Your task to perform on an android device: turn on airplane mode Image 0: 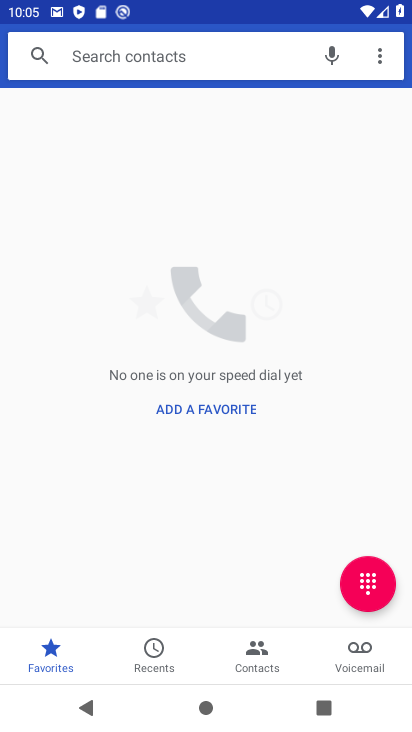
Step 0: press home button
Your task to perform on an android device: turn on airplane mode Image 1: 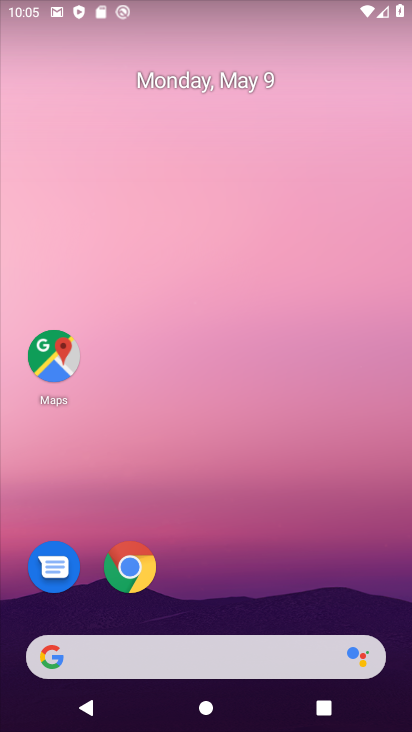
Step 1: drag from (220, 577) to (203, 220)
Your task to perform on an android device: turn on airplane mode Image 2: 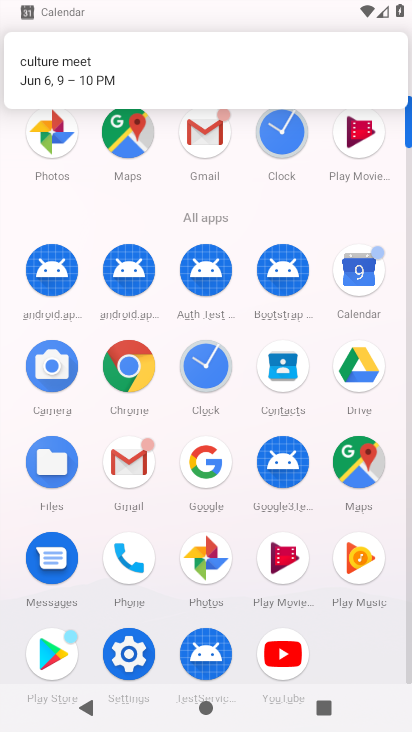
Step 2: click (126, 633)
Your task to perform on an android device: turn on airplane mode Image 3: 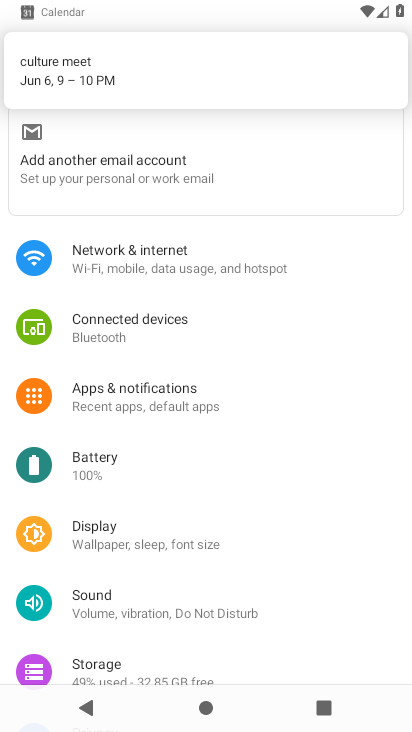
Step 3: click (164, 253)
Your task to perform on an android device: turn on airplane mode Image 4: 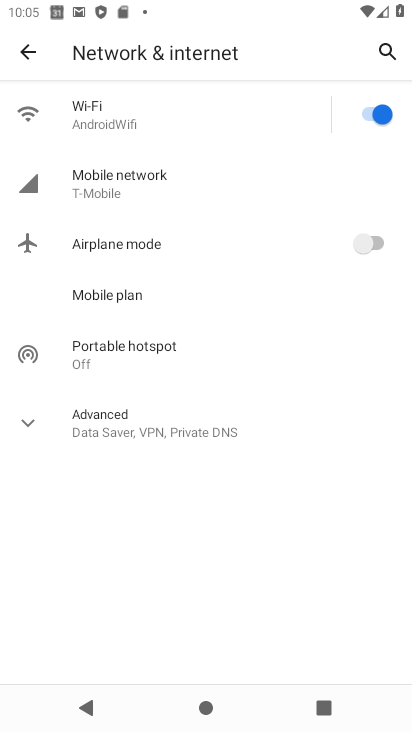
Step 4: click (381, 244)
Your task to perform on an android device: turn on airplane mode Image 5: 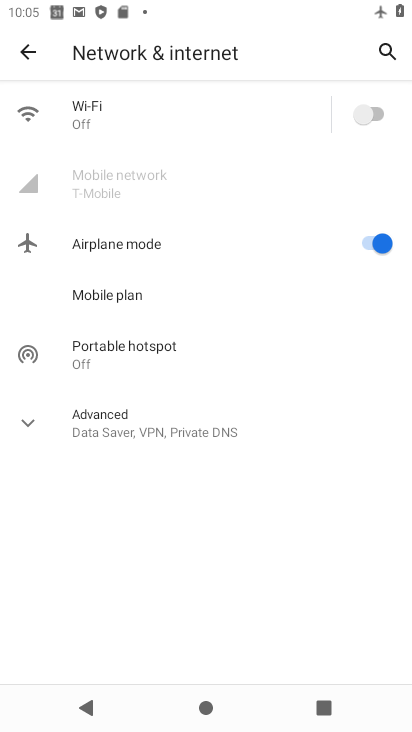
Step 5: task complete